Your task to perform on an android device: Open location settings Image 0: 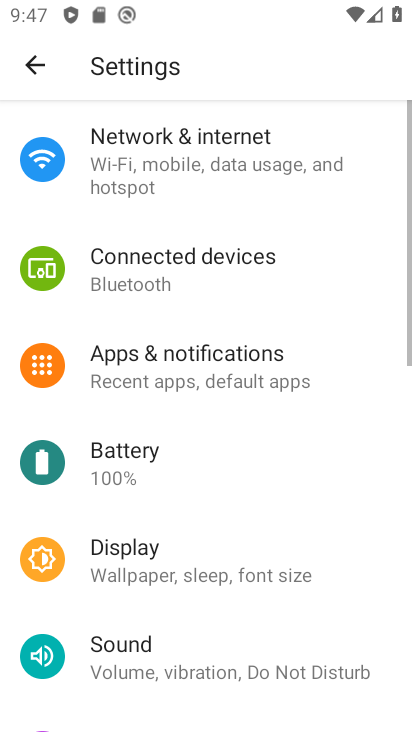
Step 0: press home button
Your task to perform on an android device: Open location settings Image 1: 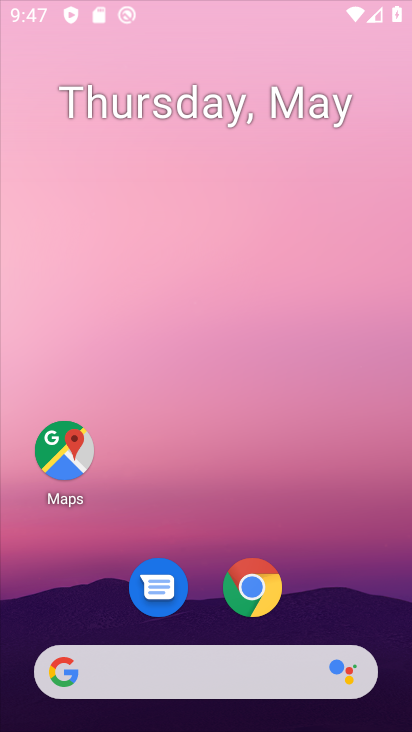
Step 1: press home button
Your task to perform on an android device: Open location settings Image 2: 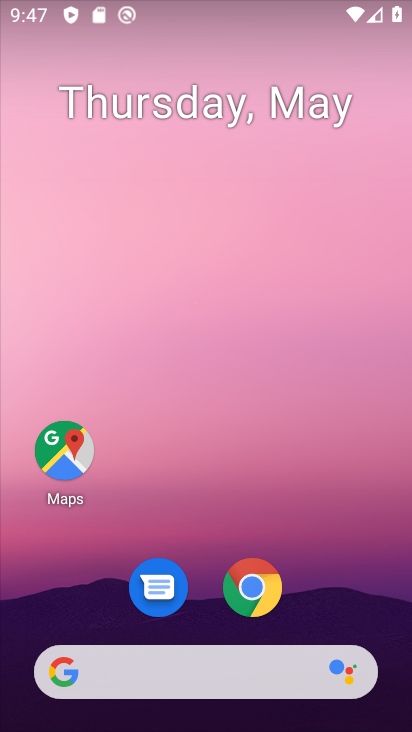
Step 2: drag from (373, 601) to (238, 50)
Your task to perform on an android device: Open location settings Image 3: 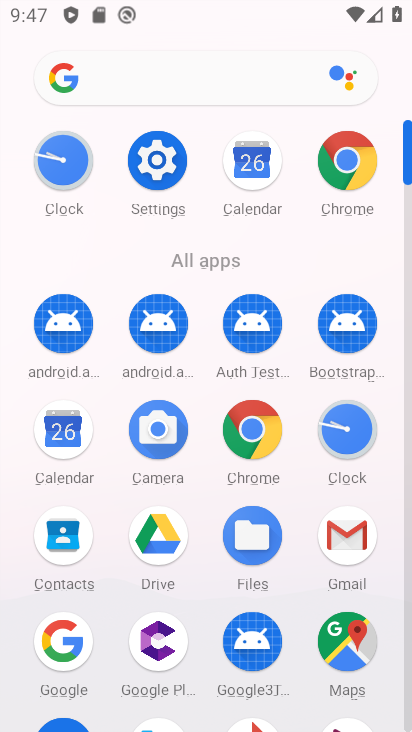
Step 3: click (168, 160)
Your task to perform on an android device: Open location settings Image 4: 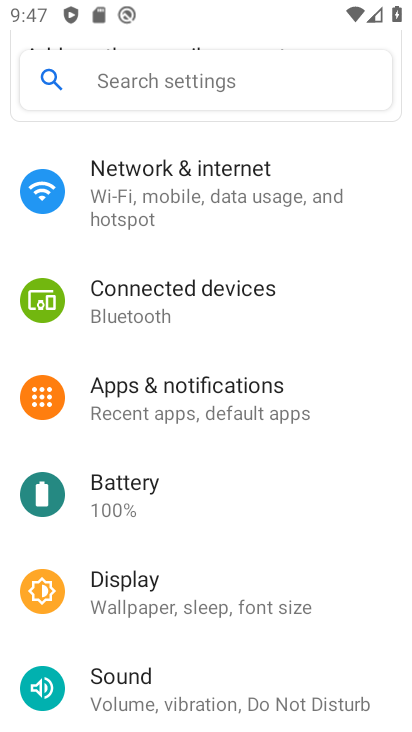
Step 4: drag from (239, 638) to (156, 85)
Your task to perform on an android device: Open location settings Image 5: 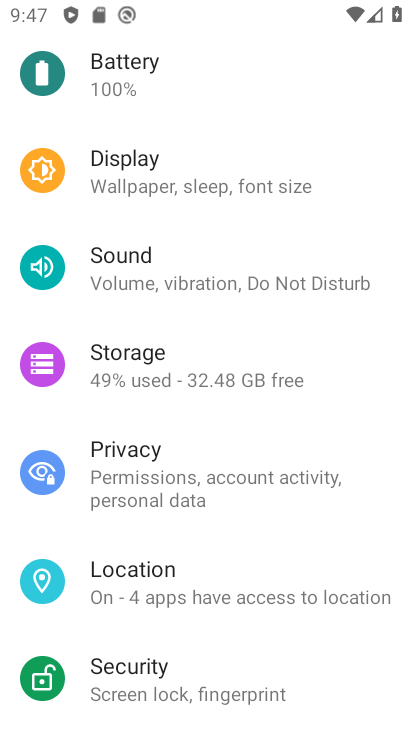
Step 5: click (192, 592)
Your task to perform on an android device: Open location settings Image 6: 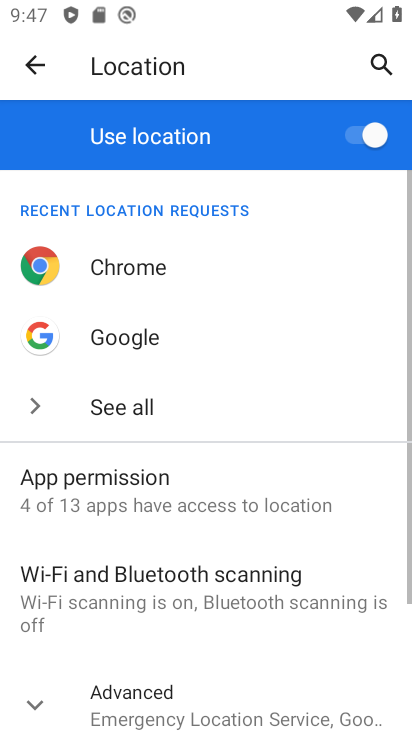
Step 6: click (180, 702)
Your task to perform on an android device: Open location settings Image 7: 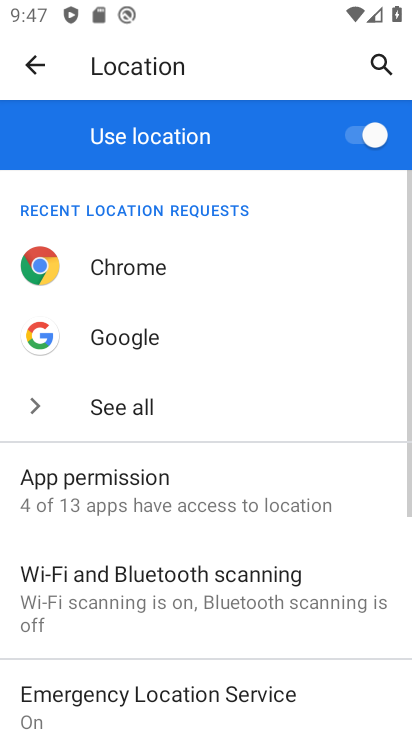
Step 7: task complete